Your task to perform on an android device: Do I have any events today? Image 0: 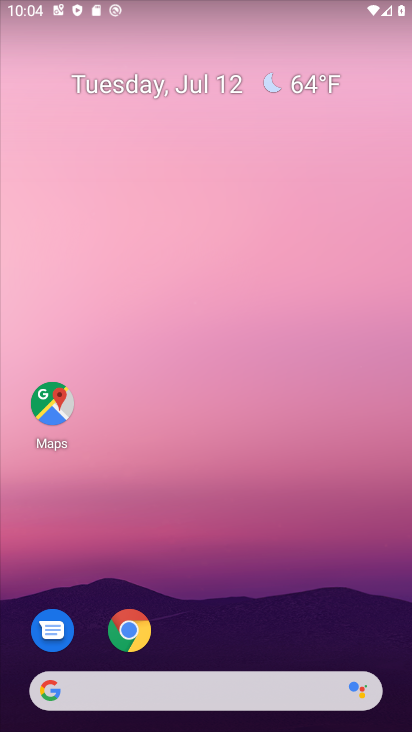
Step 0: drag from (259, 629) to (23, 520)
Your task to perform on an android device: Do I have any events today? Image 1: 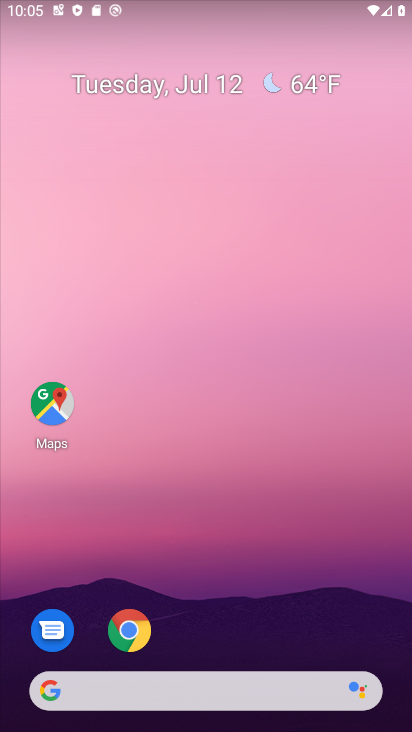
Step 1: drag from (313, 608) to (303, 21)
Your task to perform on an android device: Do I have any events today? Image 2: 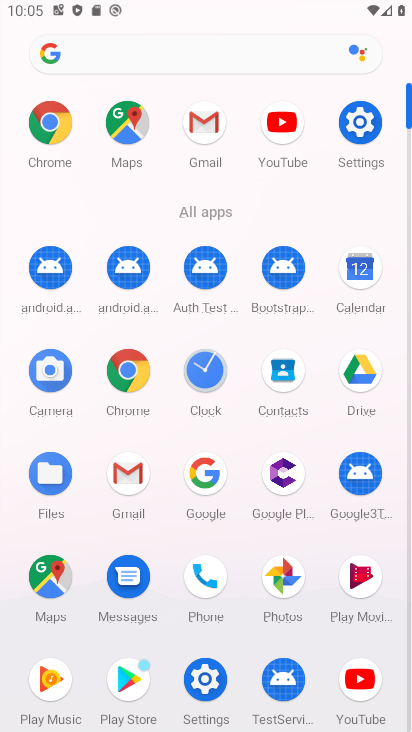
Step 2: click (372, 268)
Your task to perform on an android device: Do I have any events today? Image 3: 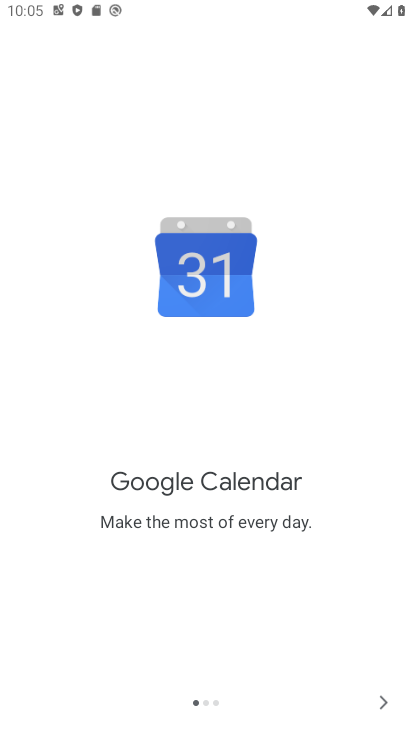
Step 3: click (384, 700)
Your task to perform on an android device: Do I have any events today? Image 4: 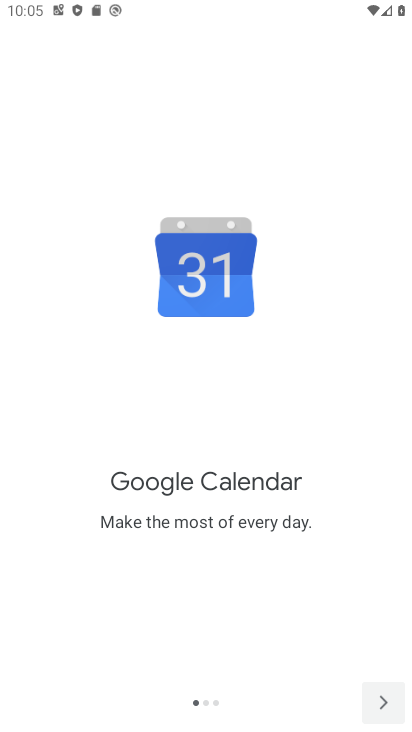
Step 4: click (382, 698)
Your task to perform on an android device: Do I have any events today? Image 5: 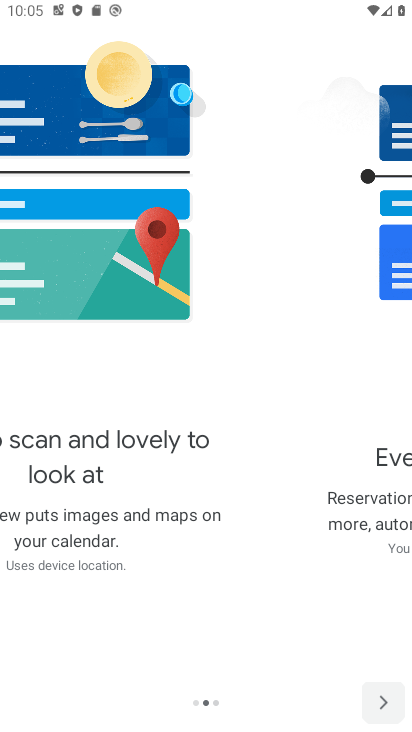
Step 5: click (386, 710)
Your task to perform on an android device: Do I have any events today? Image 6: 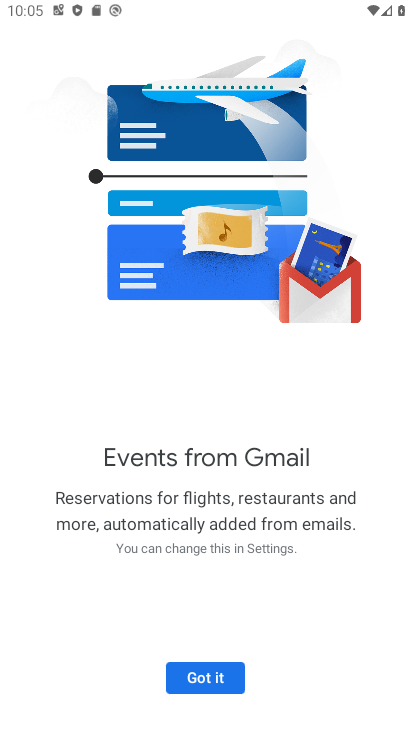
Step 6: click (382, 703)
Your task to perform on an android device: Do I have any events today? Image 7: 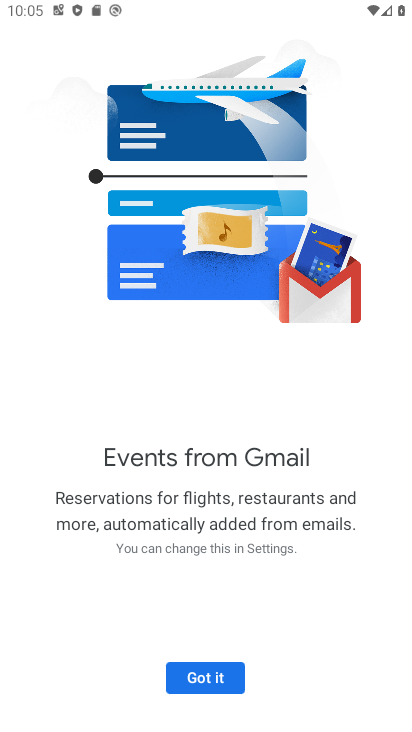
Step 7: click (204, 677)
Your task to perform on an android device: Do I have any events today? Image 8: 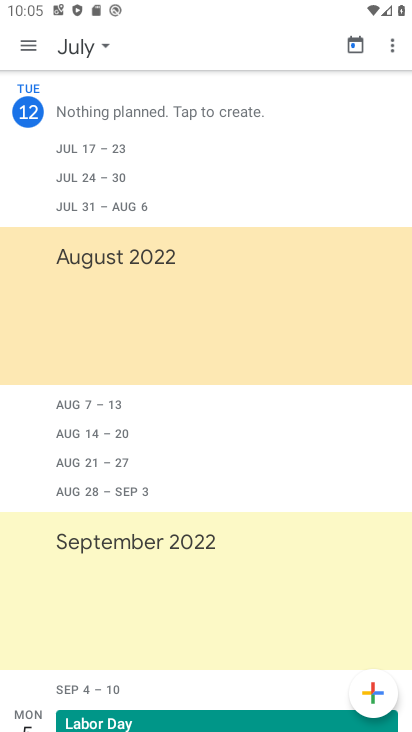
Step 8: click (87, 57)
Your task to perform on an android device: Do I have any events today? Image 9: 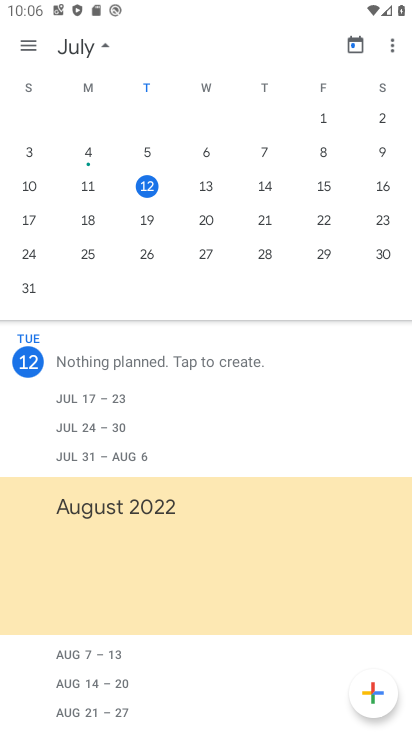
Step 9: task complete